Your task to perform on an android device: Go to Google Image 0: 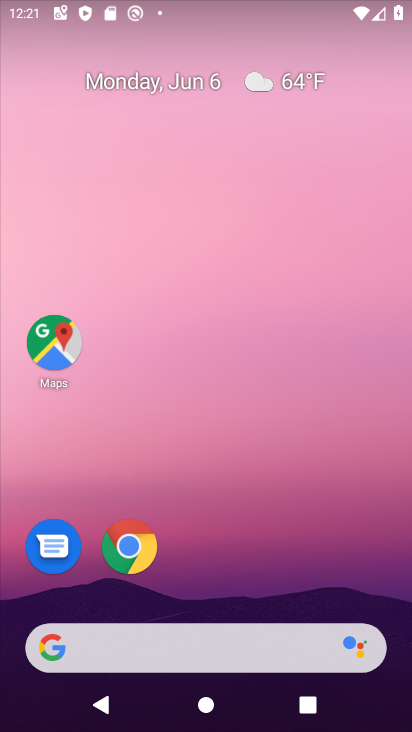
Step 0: drag from (222, 564) to (222, 253)
Your task to perform on an android device: Go to Google Image 1: 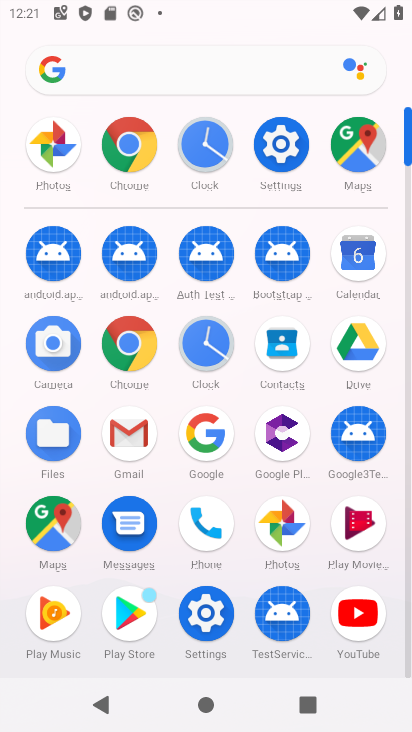
Step 1: click (197, 432)
Your task to perform on an android device: Go to Google Image 2: 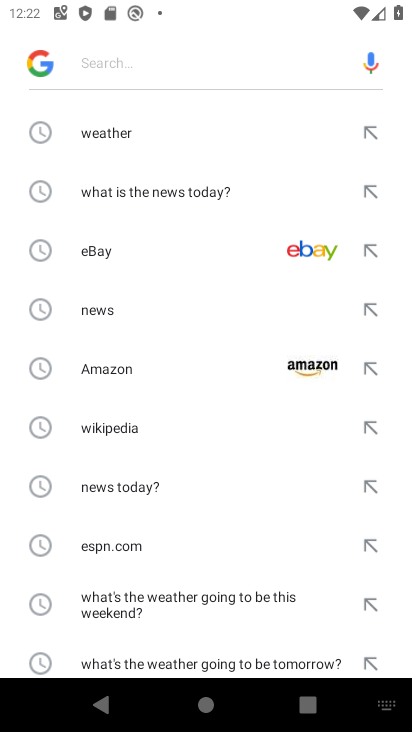
Step 2: task complete